Your task to perform on an android device: Is it going to rain this weekend? Image 0: 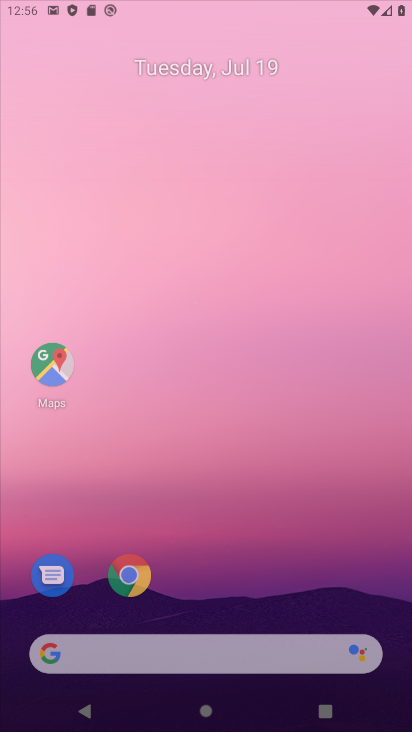
Step 0: drag from (121, 356) to (147, 251)
Your task to perform on an android device: Is it going to rain this weekend? Image 1: 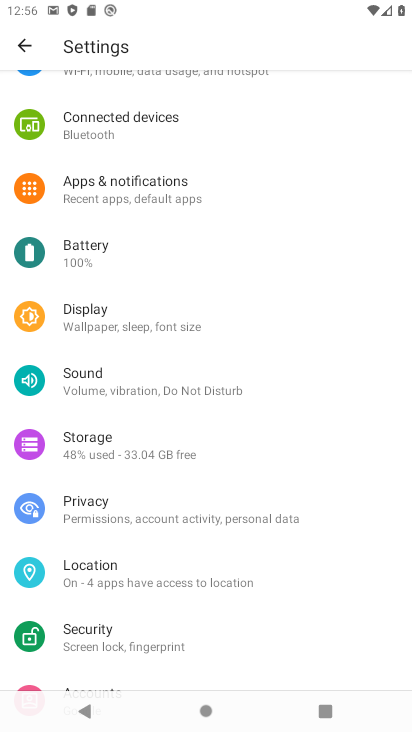
Step 1: press home button
Your task to perform on an android device: Is it going to rain this weekend? Image 2: 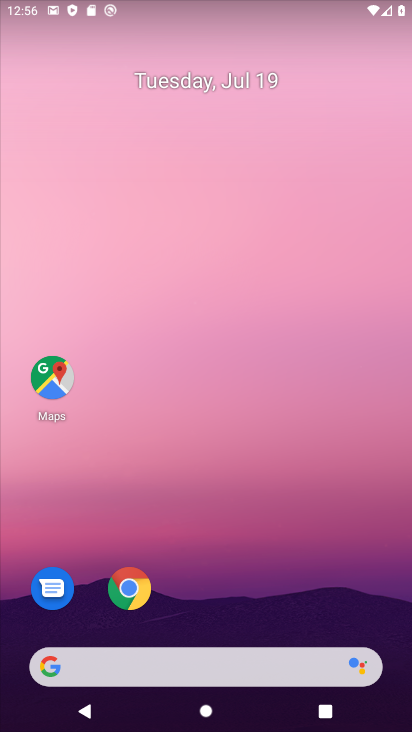
Step 2: click (102, 663)
Your task to perform on an android device: Is it going to rain this weekend? Image 3: 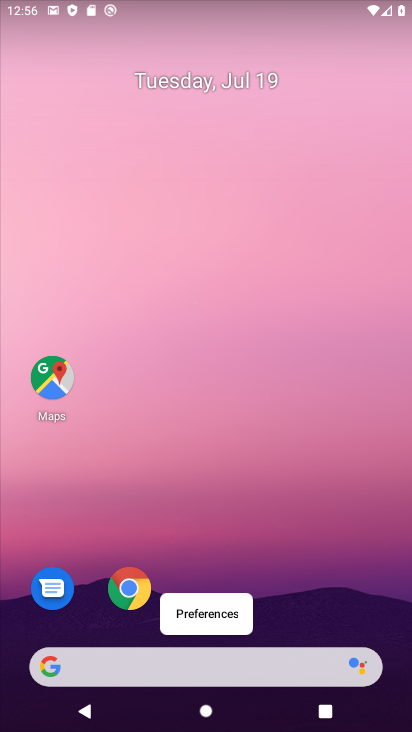
Step 3: click (126, 673)
Your task to perform on an android device: Is it going to rain this weekend? Image 4: 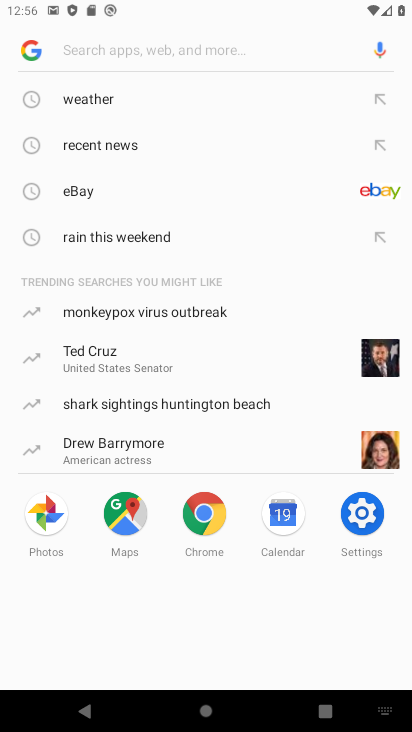
Step 4: type "Is it going to rain this weekend?"
Your task to perform on an android device: Is it going to rain this weekend? Image 5: 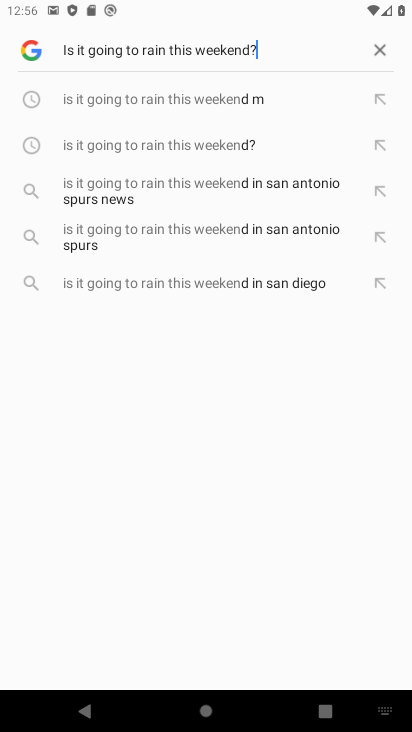
Step 5: type ""
Your task to perform on an android device: Is it going to rain this weekend? Image 6: 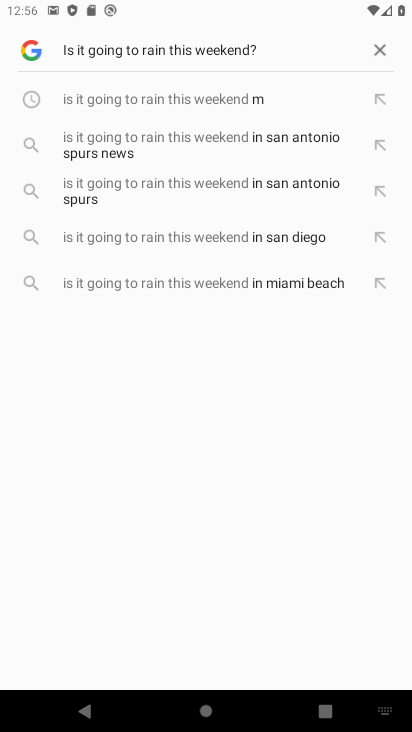
Step 6: type ""
Your task to perform on an android device: Is it going to rain this weekend? Image 7: 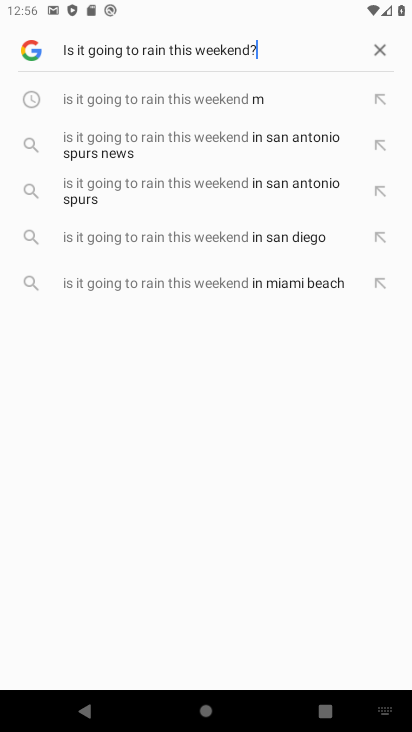
Step 7: type ""
Your task to perform on an android device: Is it going to rain this weekend? Image 8: 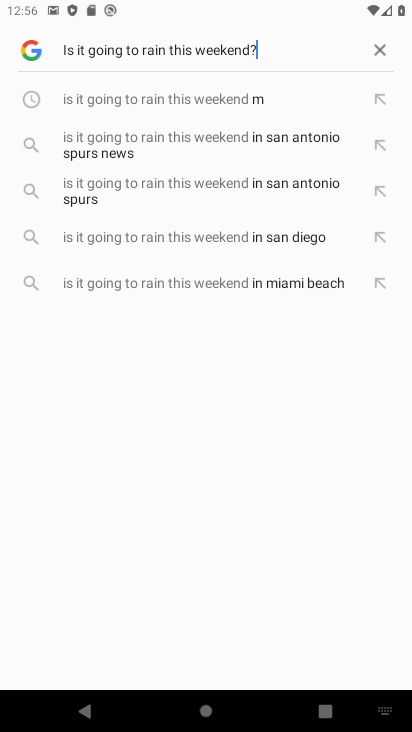
Step 8: task complete